Your task to perform on an android device: Toggle the flashlight Image 0: 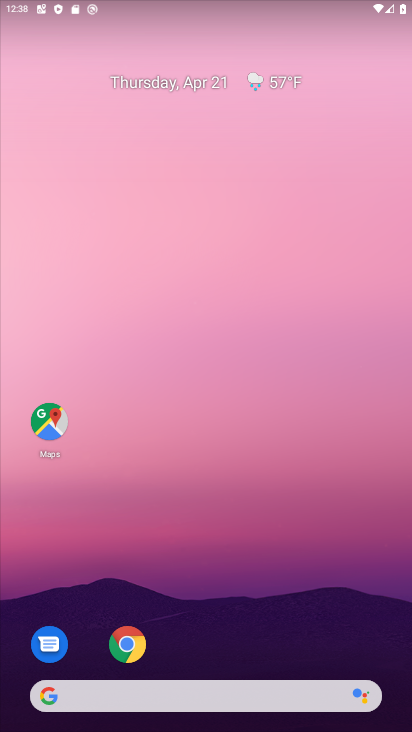
Step 0: drag from (225, 648) to (202, 30)
Your task to perform on an android device: Toggle the flashlight Image 1: 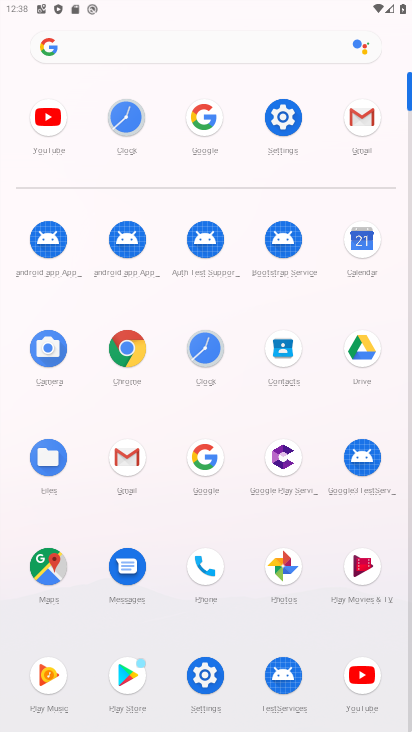
Step 1: click (281, 127)
Your task to perform on an android device: Toggle the flashlight Image 2: 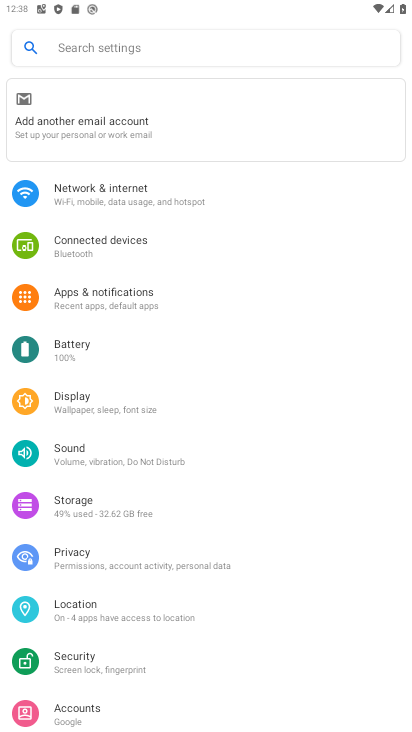
Step 2: task complete